Your task to perform on an android device: open chrome privacy settings Image 0: 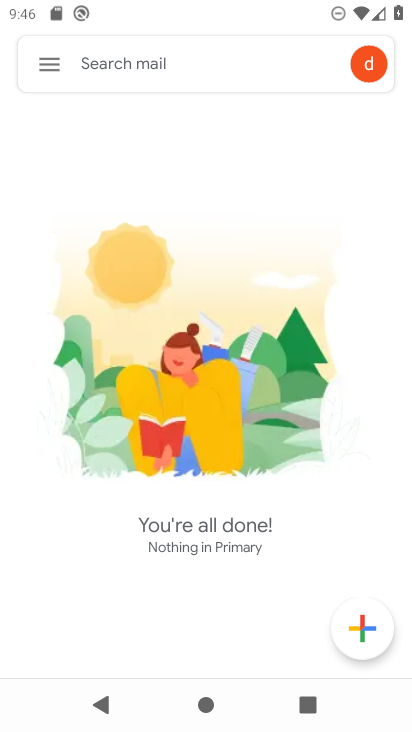
Step 0: press home button
Your task to perform on an android device: open chrome privacy settings Image 1: 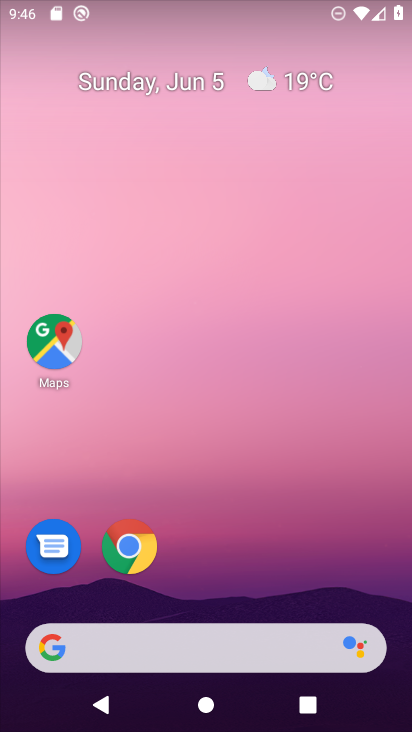
Step 1: click (107, 539)
Your task to perform on an android device: open chrome privacy settings Image 2: 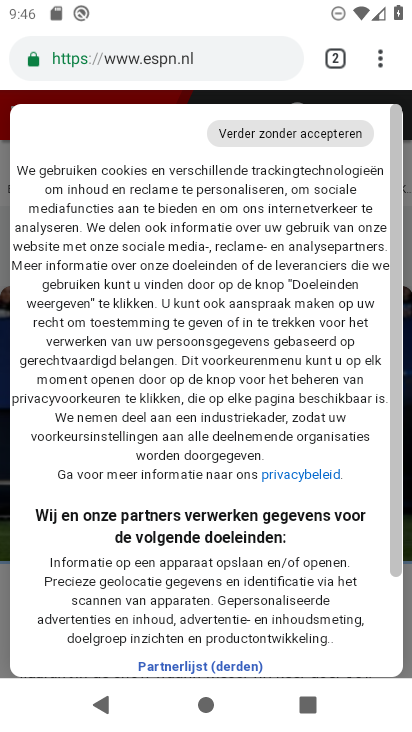
Step 2: click (373, 63)
Your task to perform on an android device: open chrome privacy settings Image 3: 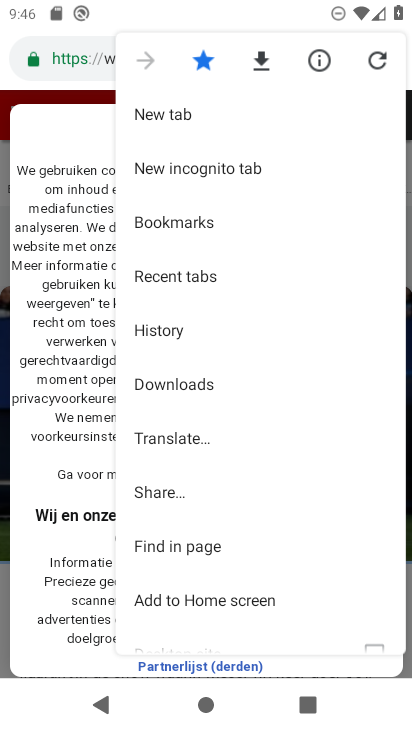
Step 3: drag from (225, 554) to (143, 77)
Your task to perform on an android device: open chrome privacy settings Image 4: 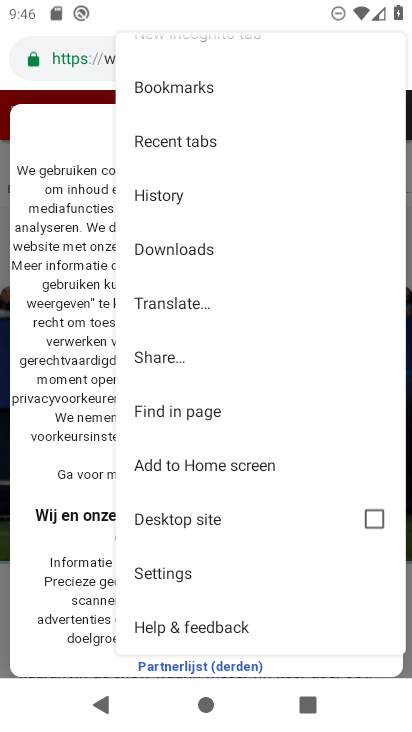
Step 4: click (171, 567)
Your task to perform on an android device: open chrome privacy settings Image 5: 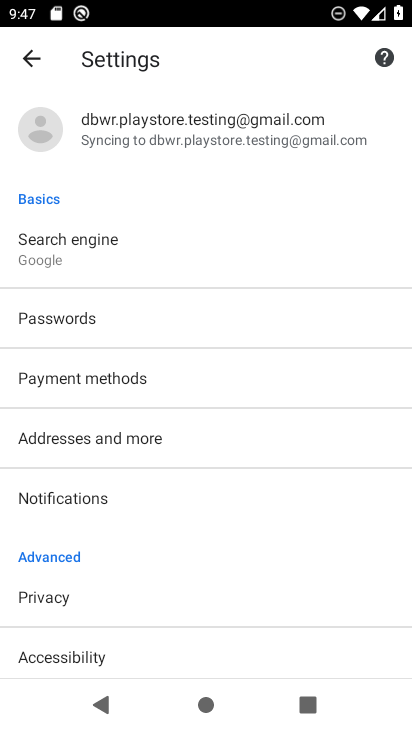
Step 5: click (61, 598)
Your task to perform on an android device: open chrome privacy settings Image 6: 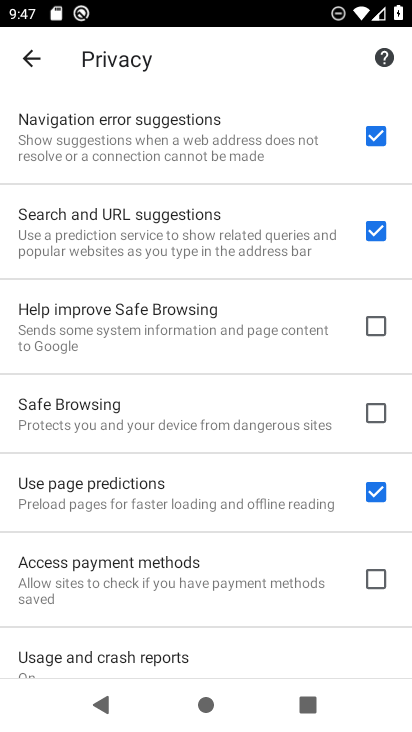
Step 6: task complete